Your task to perform on an android device: Open location settings Image 0: 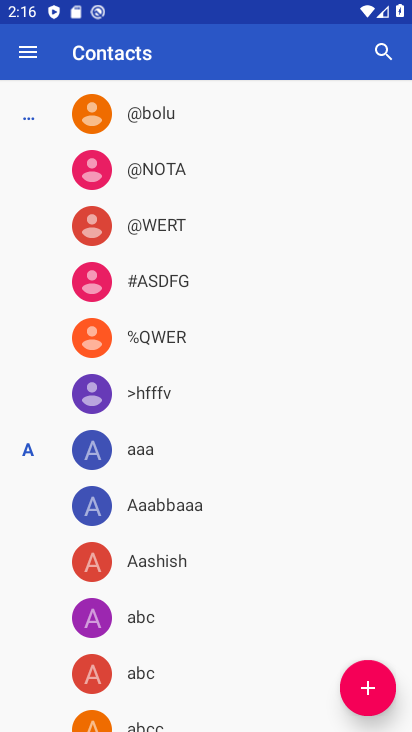
Step 0: press home button
Your task to perform on an android device: Open location settings Image 1: 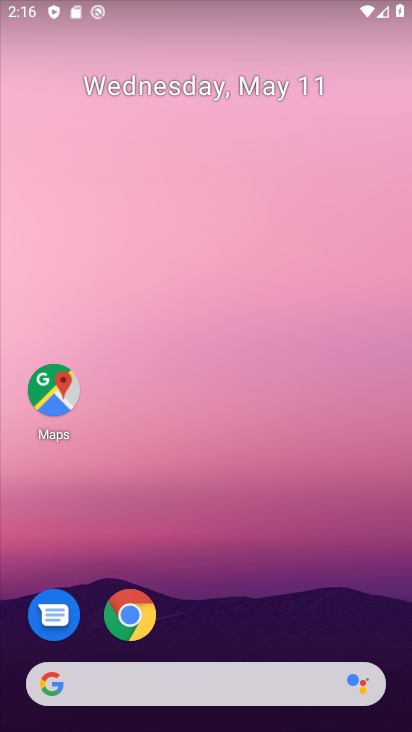
Step 1: drag from (338, 535) to (351, 165)
Your task to perform on an android device: Open location settings Image 2: 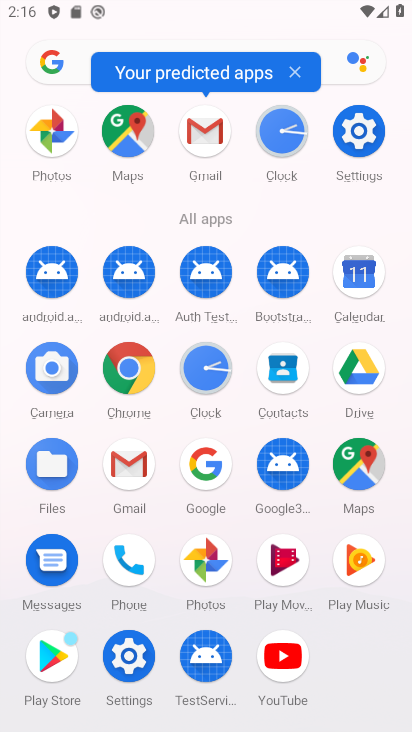
Step 2: click (375, 132)
Your task to perform on an android device: Open location settings Image 3: 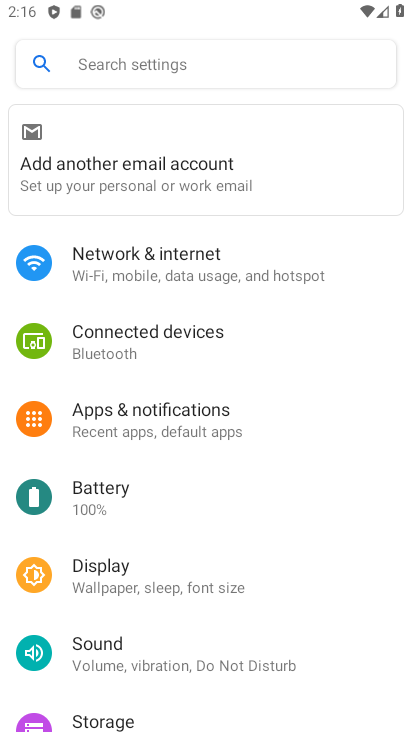
Step 3: drag from (223, 620) to (241, 244)
Your task to perform on an android device: Open location settings Image 4: 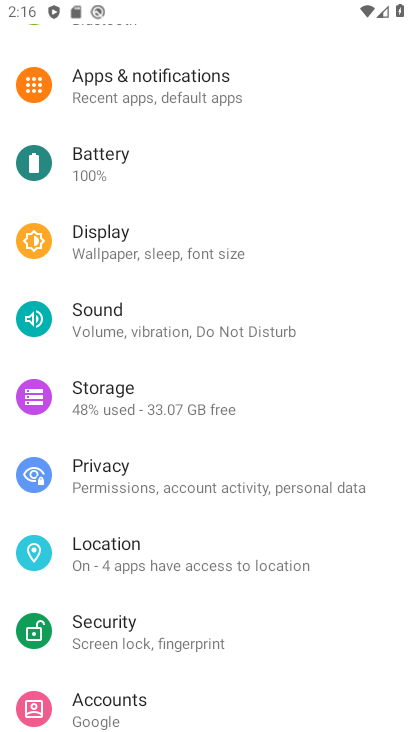
Step 4: drag from (192, 621) to (260, 196)
Your task to perform on an android device: Open location settings Image 5: 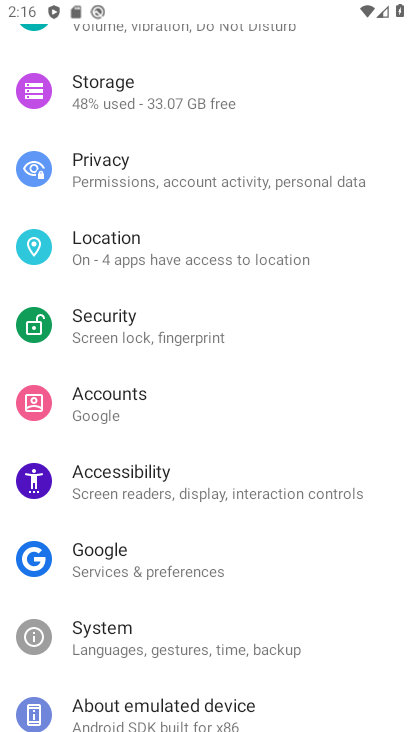
Step 5: click (164, 259)
Your task to perform on an android device: Open location settings Image 6: 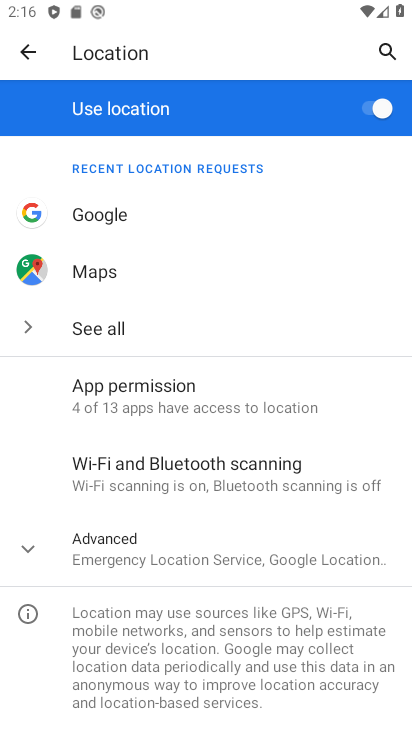
Step 6: task complete